Your task to perform on an android device: star an email in the gmail app Image 0: 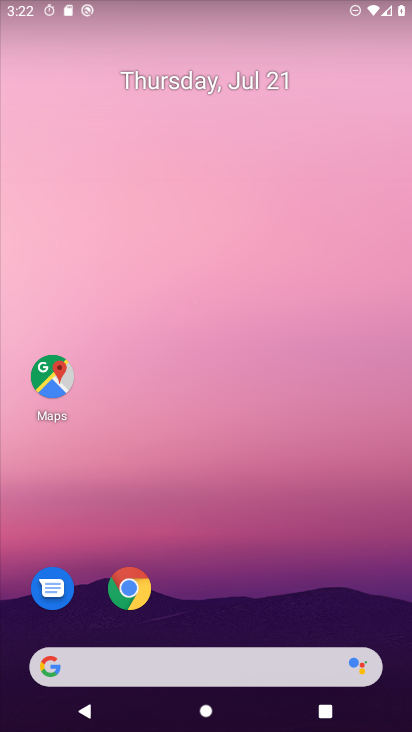
Step 0: drag from (228, 712) to (314, 198)
Your task to perform on an android device: star an email in the gmail app Image 1: 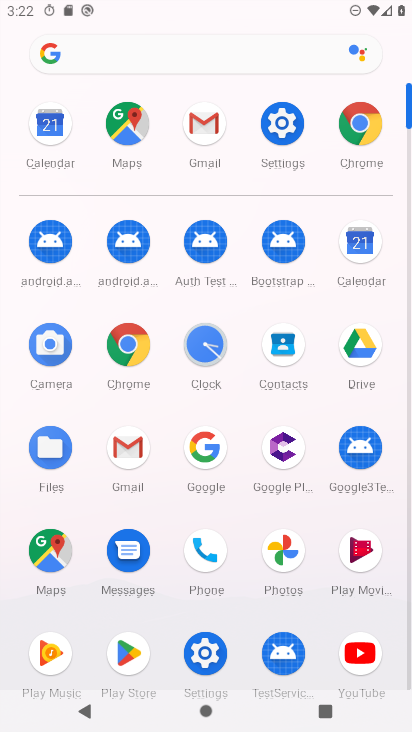
Step 1: click (138, 451)
Your task to perform on an android device: star an email in the gmail app Image 2: 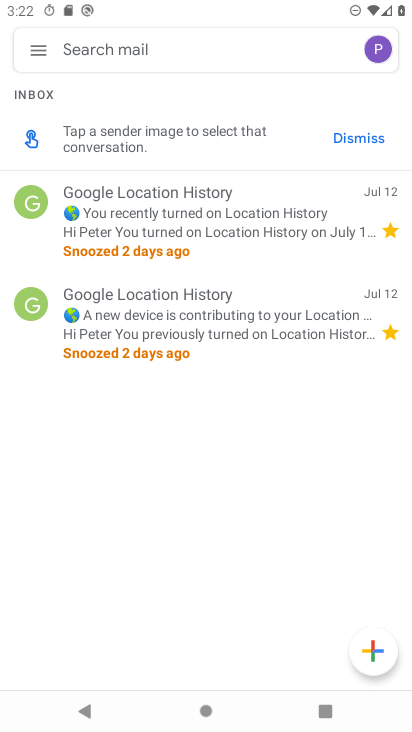
Step 2: click (39, 58)
Your task to perform on an android device: star an email in the gmail app Image 3: 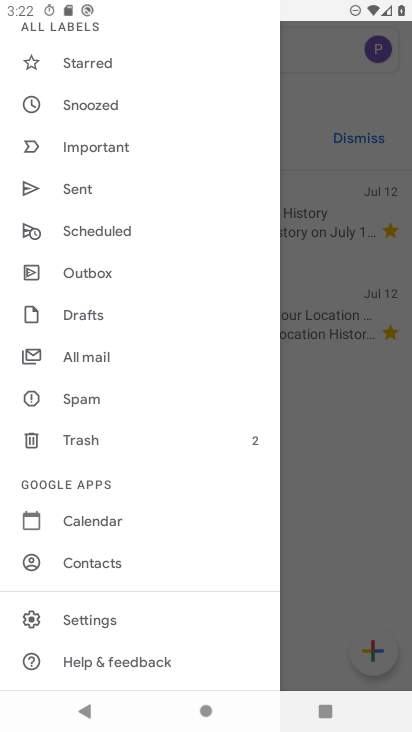
Step 3: click (102, 355)
Your task to perform on an android device: star an email in the gmail app Image 4: 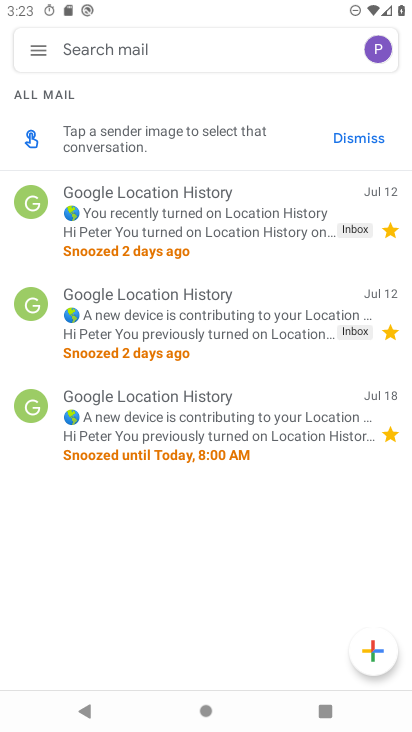
Step 4: task complete